Your task to perform on an android device: Search for Italian restaurants on Maps Image 0: 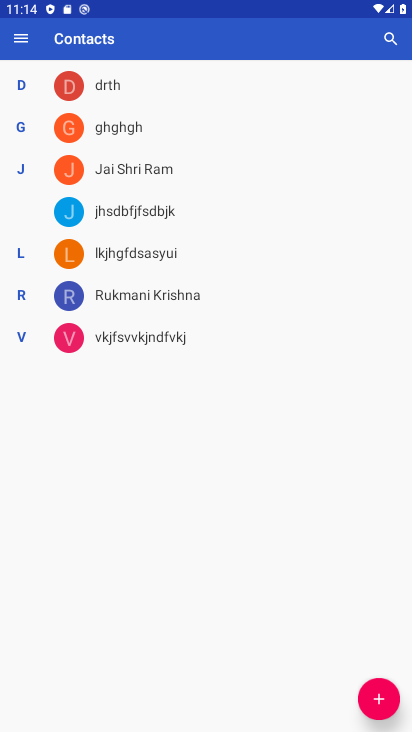
Step 0: press home button
Your task to perform on an android device: Search for Italian restaurants on Maps Image 1: 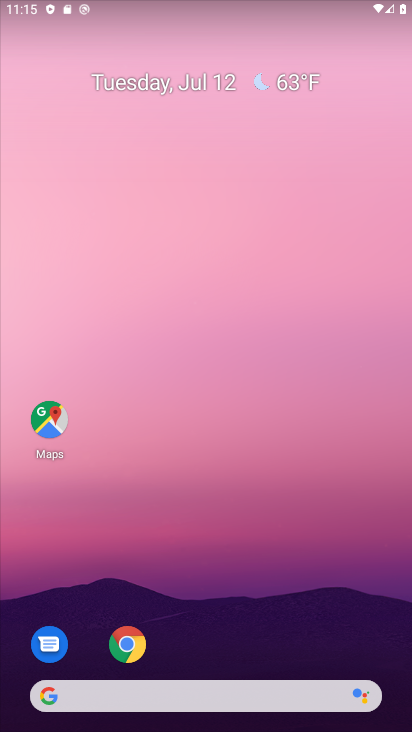
Step 1: click (47, 420)
Your task to perform on an android device: Search for Italian restaurants on Maps Image 2: 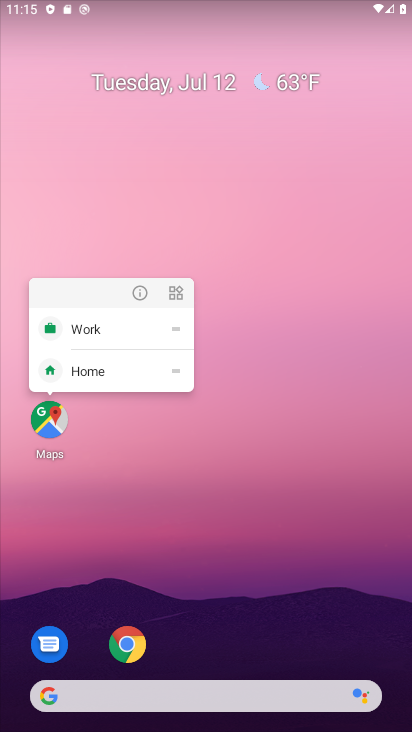
Step 2: click (47, 420)
Your task to perform on an android device: Search for Italian restaurants on Maps Image 3: 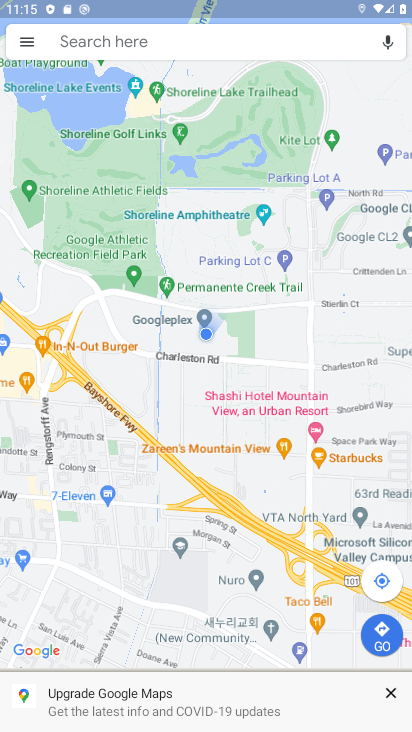
Step 3: click (230, 44)
Your task to perform on an android device: Search for Italian restaurants on Maps Image 4: 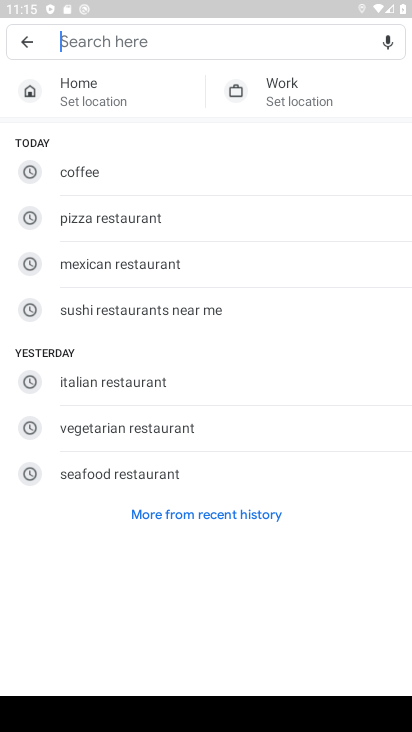
Step 4: type "Italian restaurants"
Your task to perform on an android device: Search for Italian restaurants on Maps Image 5: 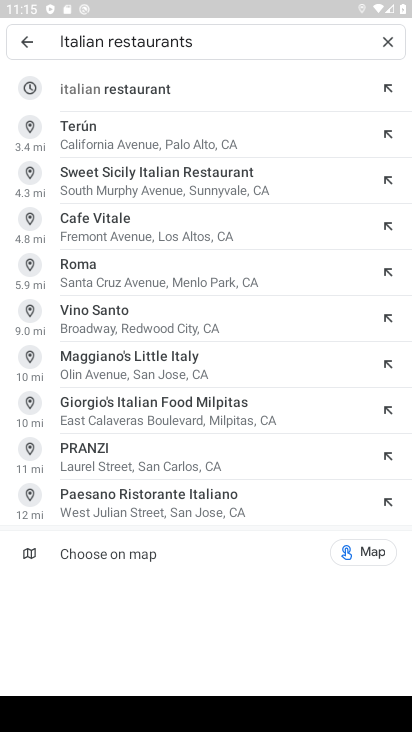
Step 5: click (132, 90)
Your task to perform on an android device: Search for Italian restaurants on Maps Image 6: 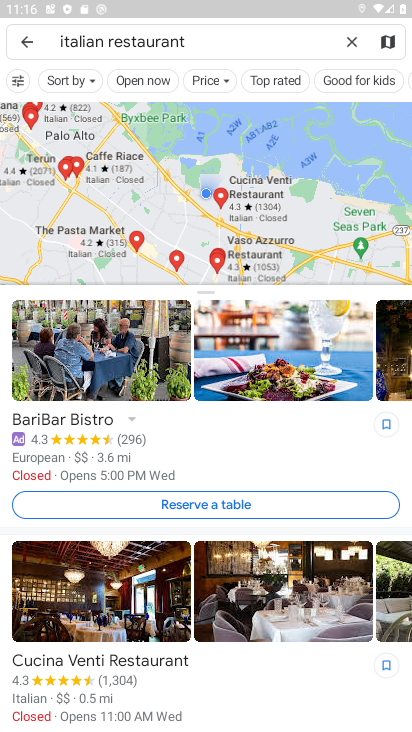
Step 6: task complete